Your task to perform on an android device: turn off translation in the chrome app Image 0: 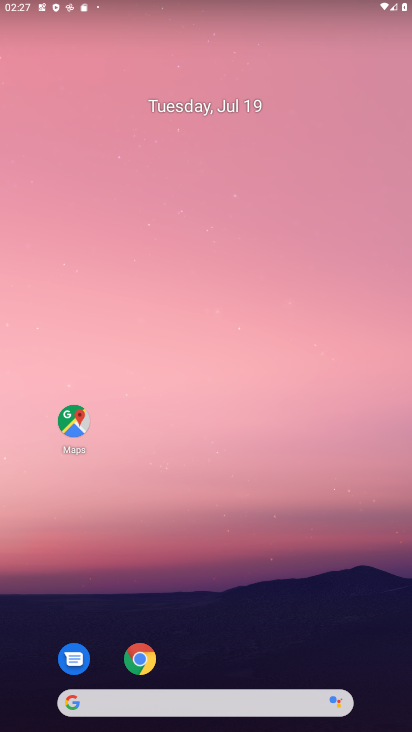
Step 0: press home button
Your task to perform on an android device: turn off translation in the chrome app Image 1: 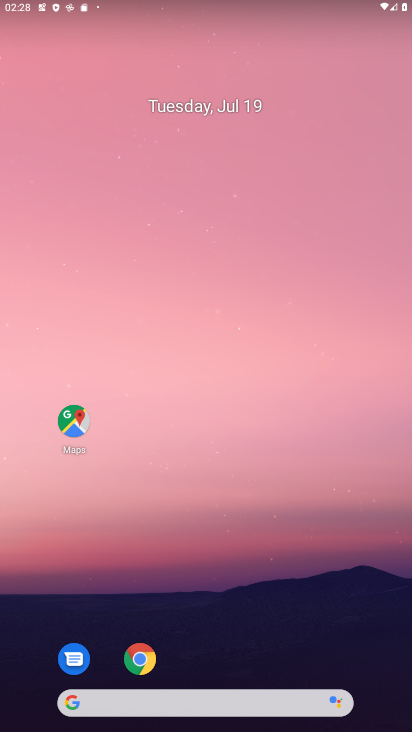
Step 1: click (153, 661)
Your task to perform on an android device: turn off translation in the chrome app Image 2: 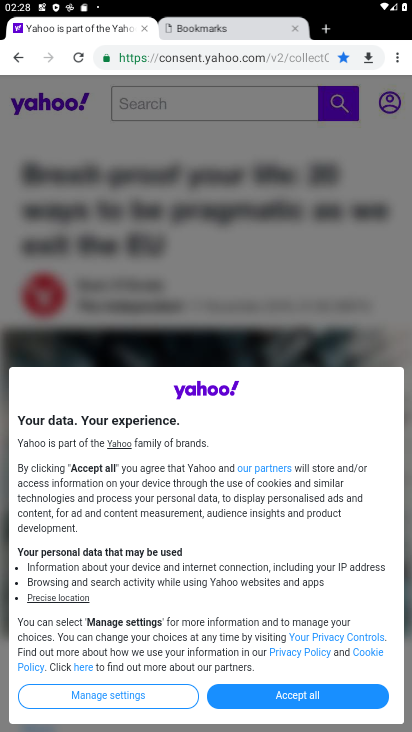
Step 2: drag from (396, 46) to (286, 419)
Your task to perform on an android device: turn off translation in the chrome app Image 3: 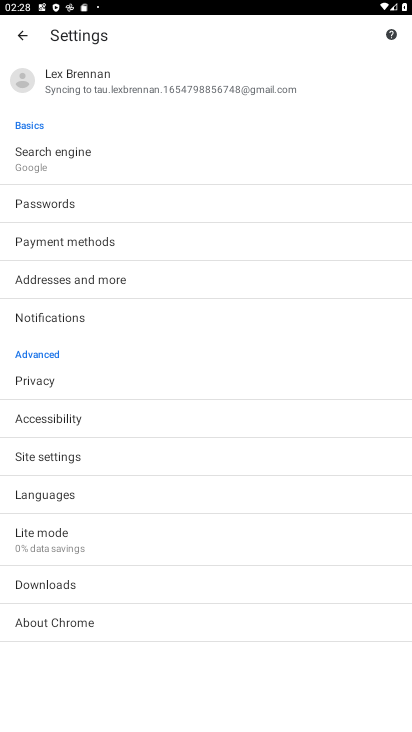
Step 3: click (52, 505)
Your task to perform on an android device: turn off translation in the chrome app Image 4: 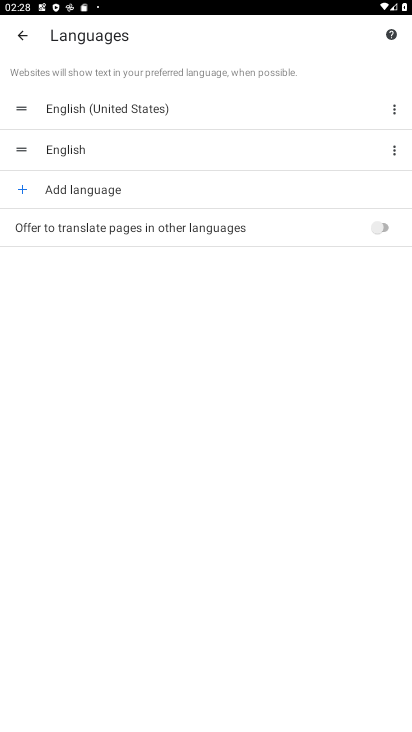
Step 4: task complete